Your task to perform on an android device: What's on my calendar today? Image 0: 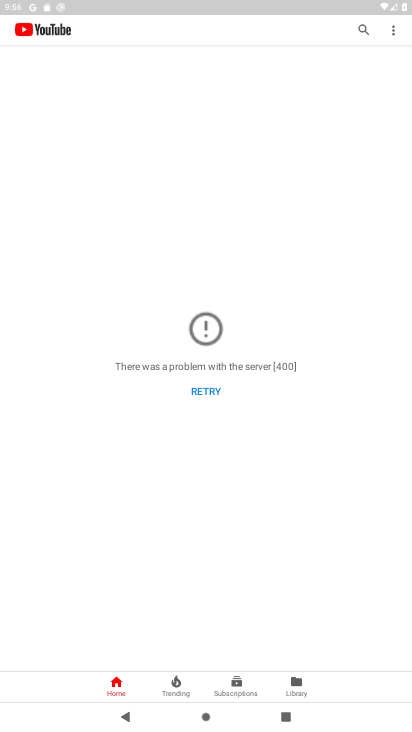
Step 0: press home button
Your task to perform on an android device: What's on my calendar today? Image 1: 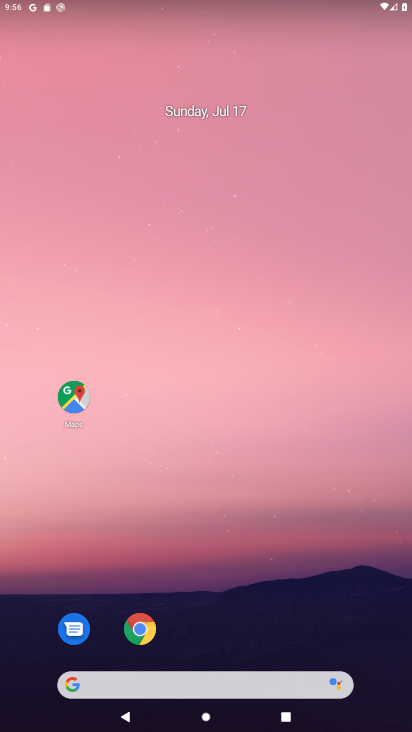
Step 1: drag from (206, 685) to (287, 276)
Your task to perform on an android device: What's on my calendar today? Image 2: 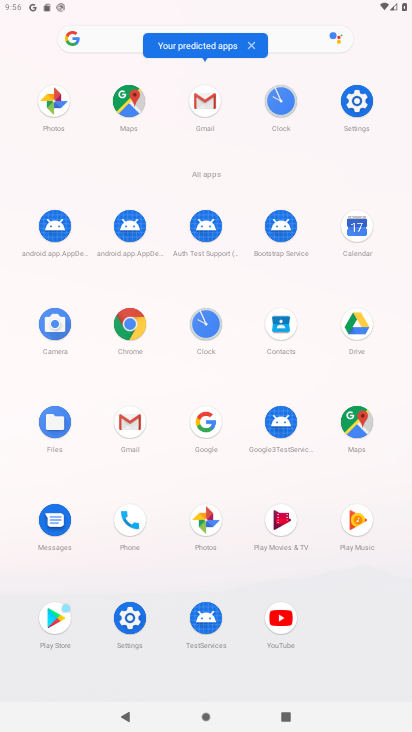
Step 2: click (354, 228)
Your task to perform on an android device: What's on my calendar today? Image 3: 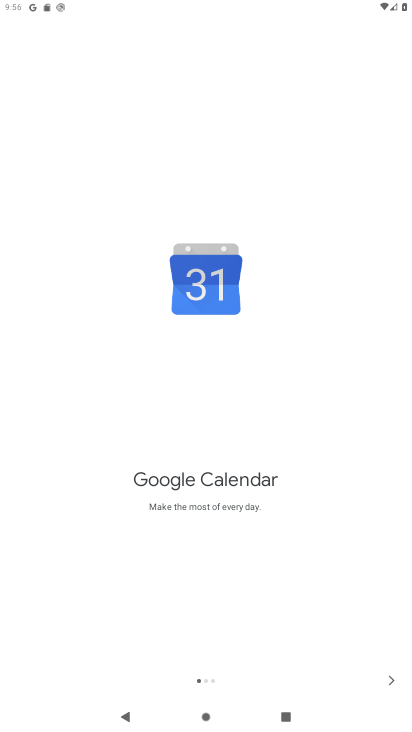
Step 3: click (394, 679)
Your task to perform on an android device: What's on my calendar today? Image 4: 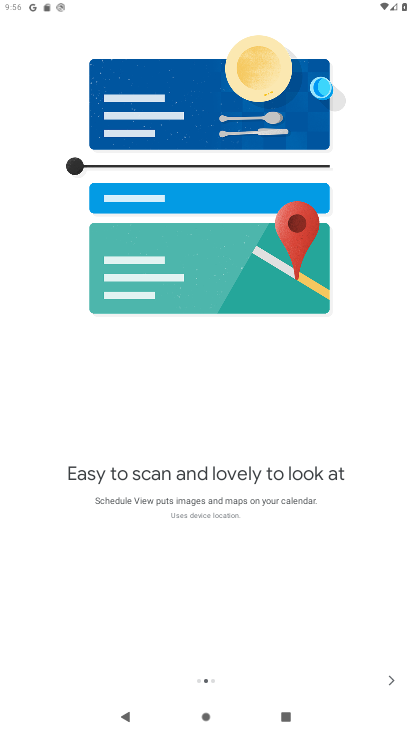
Step 4: click (394, 679)
Your task to perform on an android device: What's on my calendar today? Image 5: 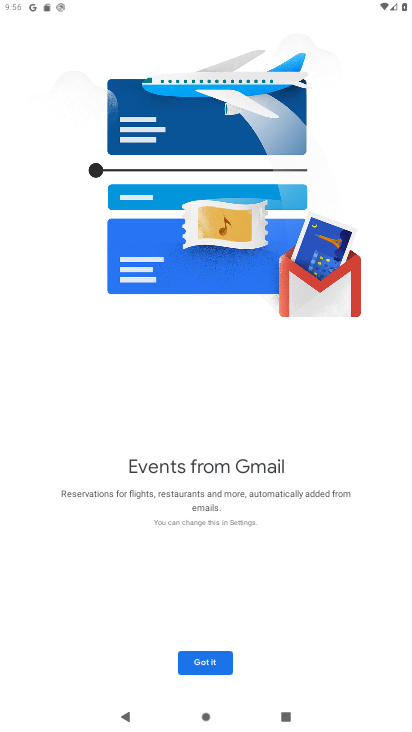
Step 5: click (208, 665)
Your task to perform on an android device: What's on my calendar today? Image 6: 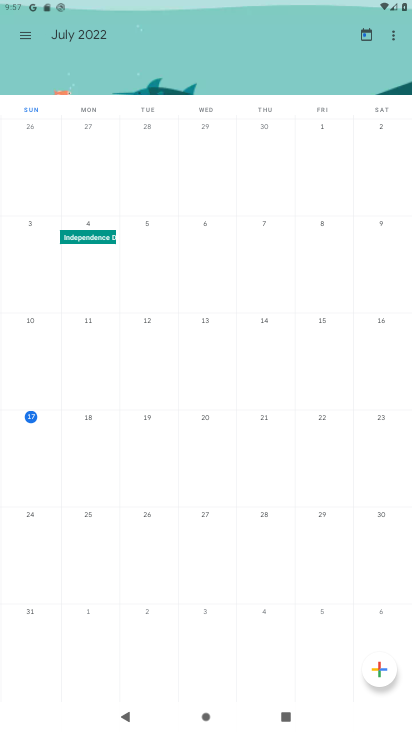
Step 6: click (33, 430)
Your task to perform on an android device: What's on my calendar today? Image 7: 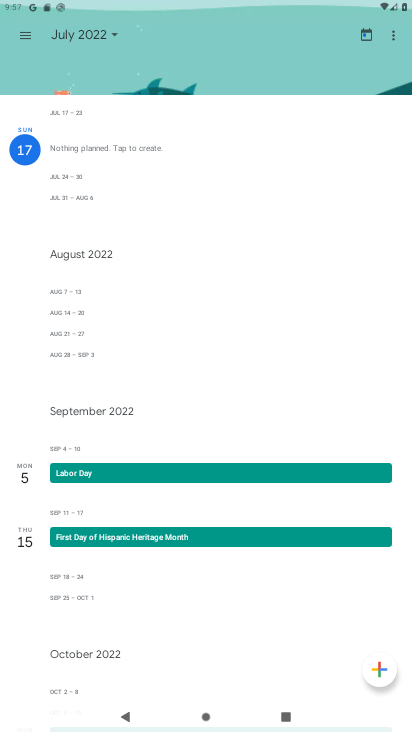
Step 7: click (23, 31)
Your task to perform on an android device: What's on my calendar today? Image 8: 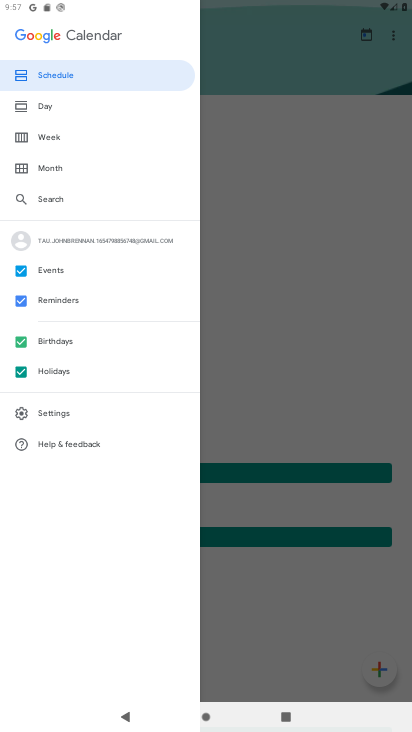
Step 8: click (64, 74)
Your task to perform on an android device: What's on my calendar today? Image 9: 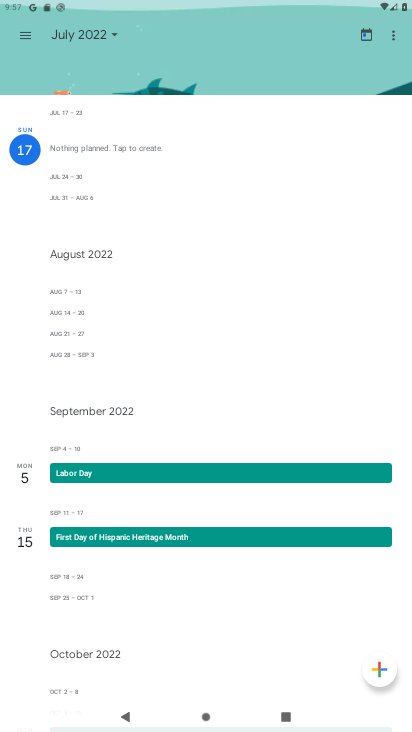
Step 9: task complete